Your task to perform on an android device: turn on javascript in the chrome app Image 0: 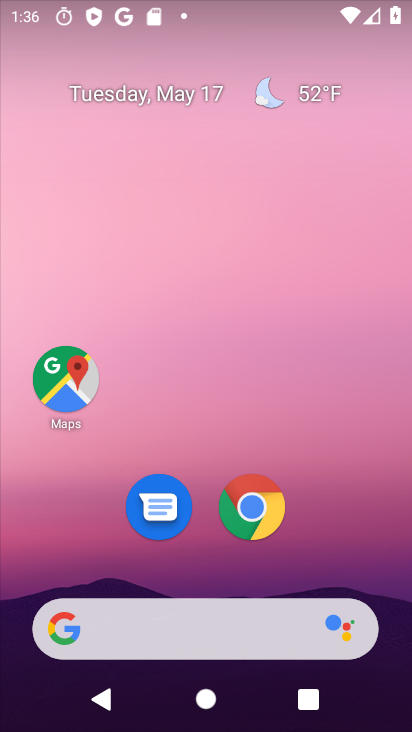
Step 0: click (254, 507)
Your task to perform on an android device: turn on javascript in the chrome app Image 1: 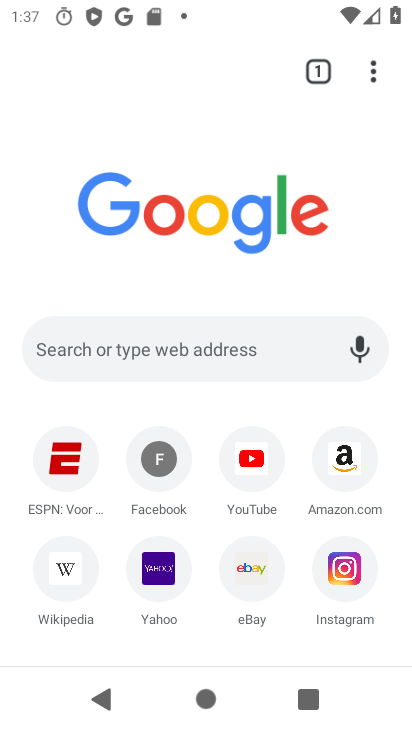
Step 1: click (361, 73)
Your task to perform on an android device: turn on javascript in the chrome app Image 2: 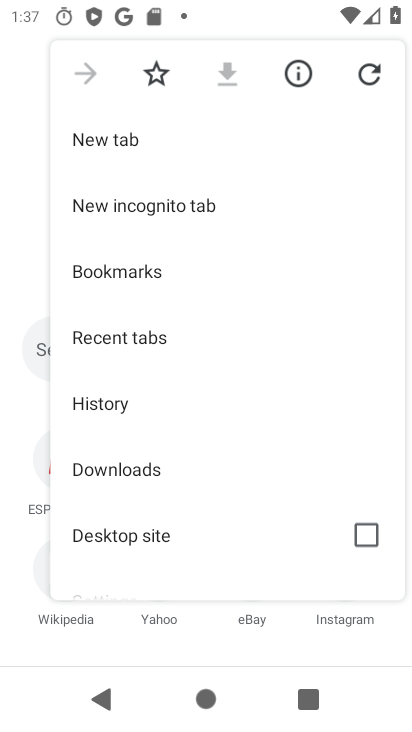
Step 2: drag from (128, 473) to (167, 217)
Your task to perform on an android device: turn on javascript in the chrome app Image 3: 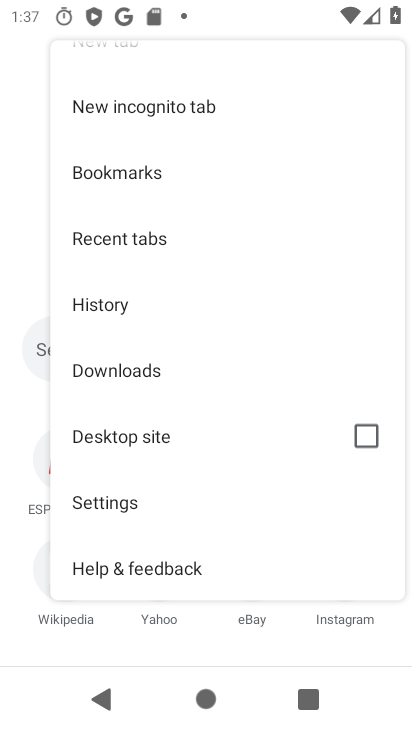
Step 3: click (125, 499)
Your task to perform on an android device: turn on javascript in the chrome app Image 4: 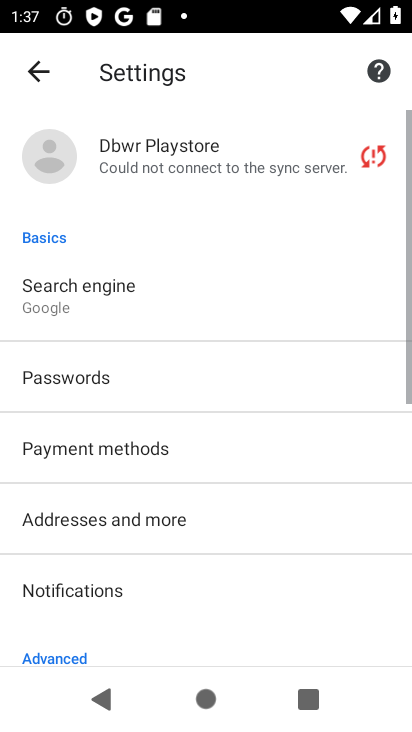
Step 4: drag from (194, 564) to (197, 246)
Your task to perform on an android device: turn on javascript in the chrome app Image 5: 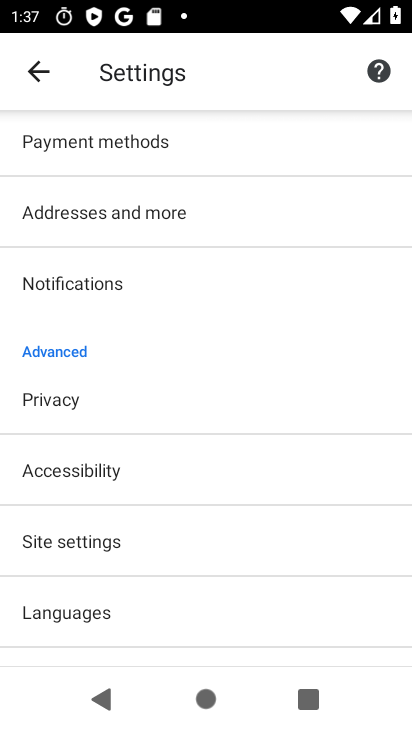
Step 5: click (69, 540)
Your task to perform on an android device: turn on javascript in the chrome app Image 6: 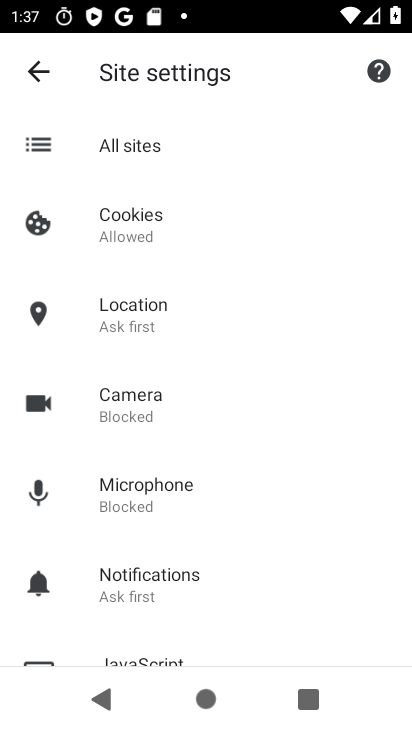
Step 6: drag from (225, 523) to (224, 290)
Your task to perform on an android device: turn on javascript in the chrome app Image 7: 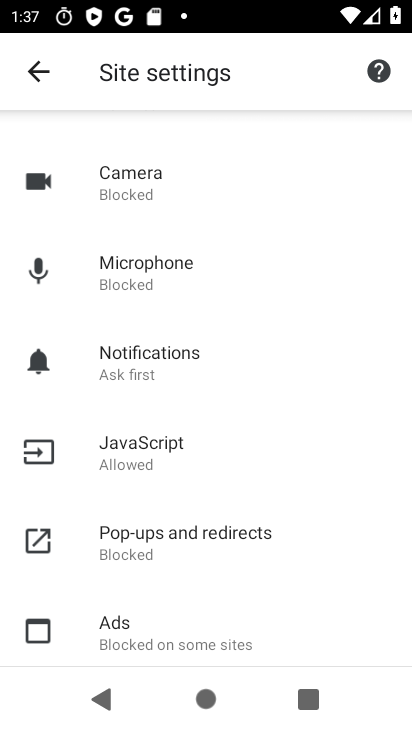
Step 7: click (132, 448)
Your task to perform on an android device: turn on javascript in the chrome app Image 8: 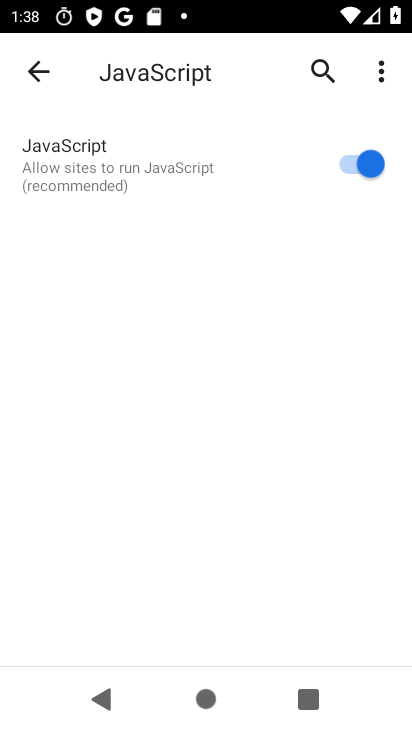
Step 8: task complete